Your task to perform on an android device: Go to Yahoo.com Image 0: 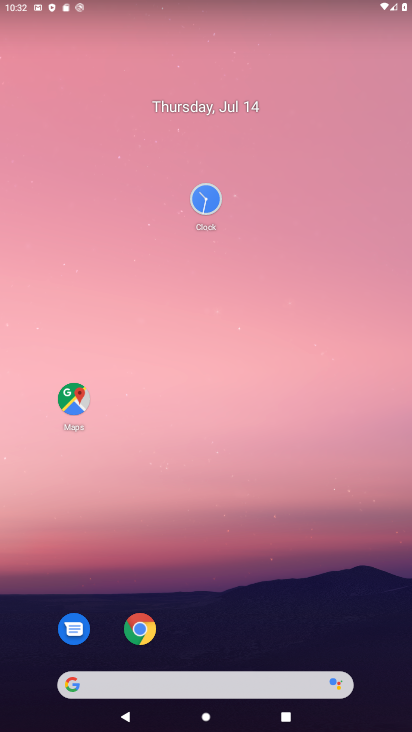
Step 0: press home button
Your task to perform on an android device: Go to Yahoo.com Image 1: 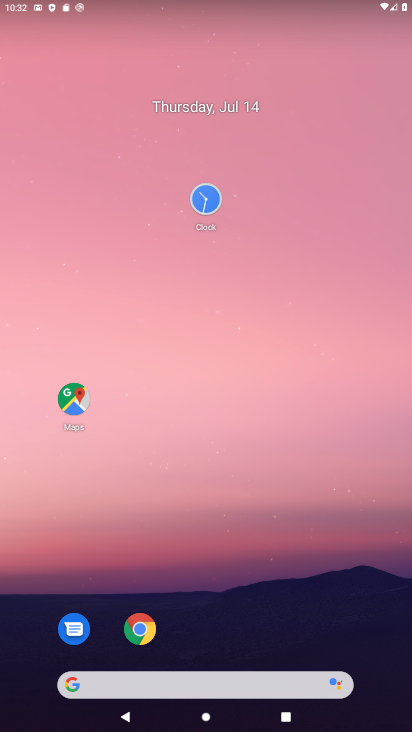
Step 1: click (145, 623)
Your task to perform on an android device: Go to Yahoo.com Image 2: 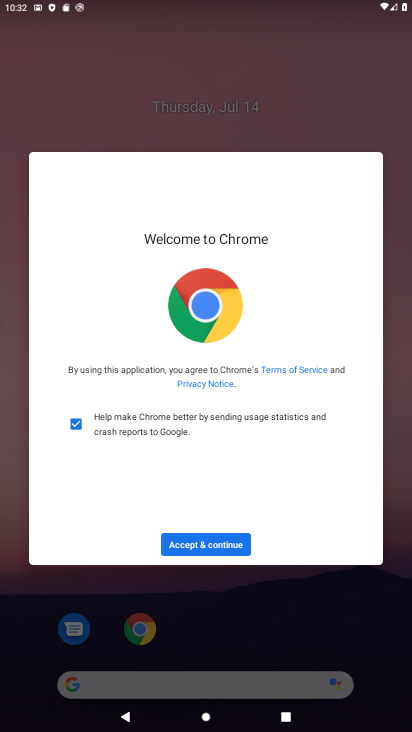
Step 2: click (230, 552)
Your task to perform on an android device: Go to Yahoo.com Image 3: 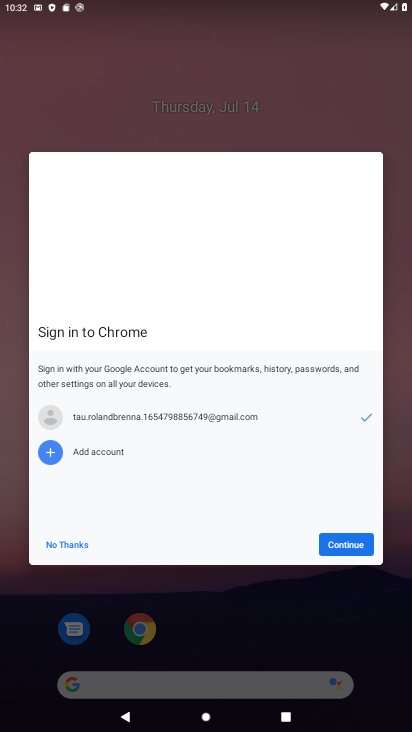
Step 3: click (351, 536)
Your task to perform on an android device: Go to Yahoo.com Image 4: 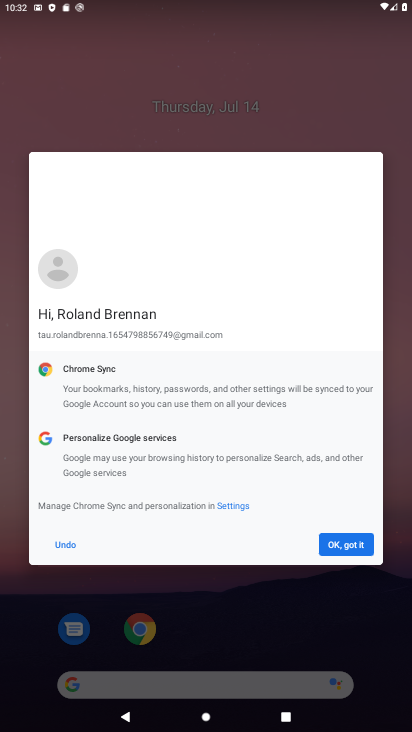
Step 4: click (350, 536)
Your task to perform on an android device: Go to Yahoo.com Image 5: 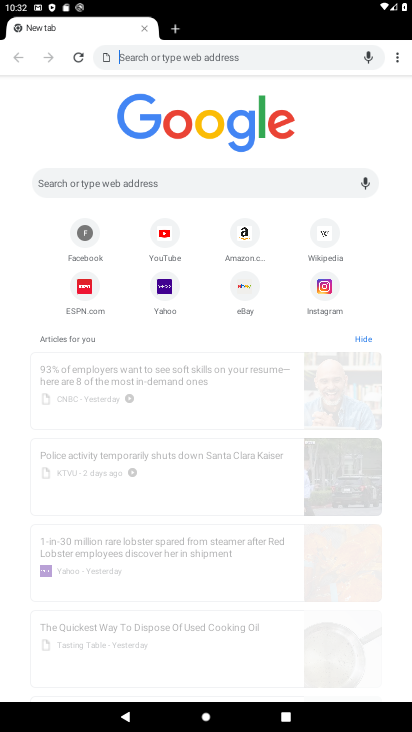
Step 5: click (179, 292)
Your task to perform on an android device: Go to Yahoo.com Image 6: 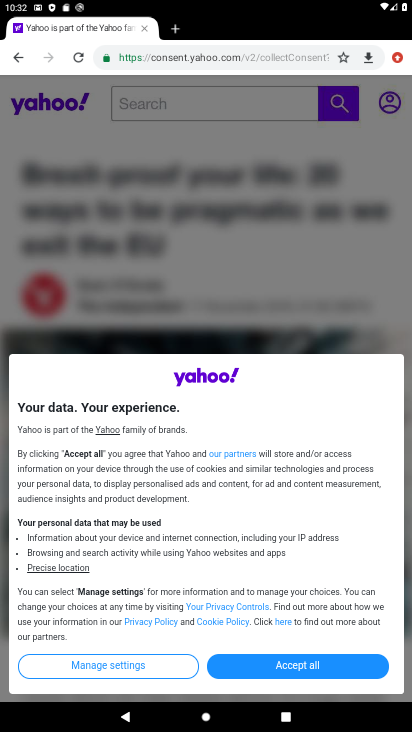
Step 6: task complete